Your task to perform on an android device: What's the weather going to be tomorrow? Image 0: 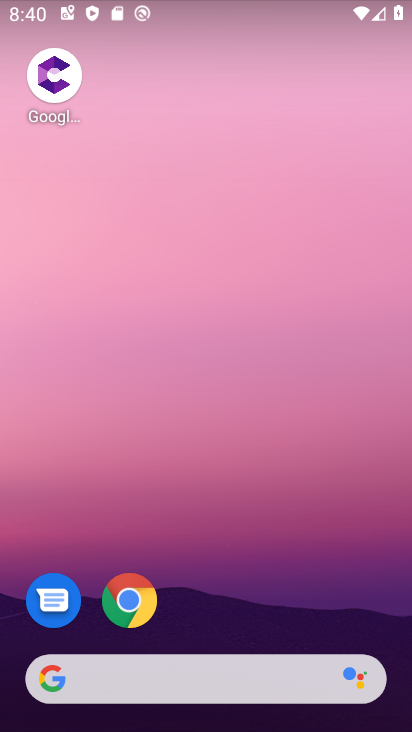
Step 0: click (230, 679)
Your task to perform on an android device: What's the weather going to be tomorrow? Image 1: 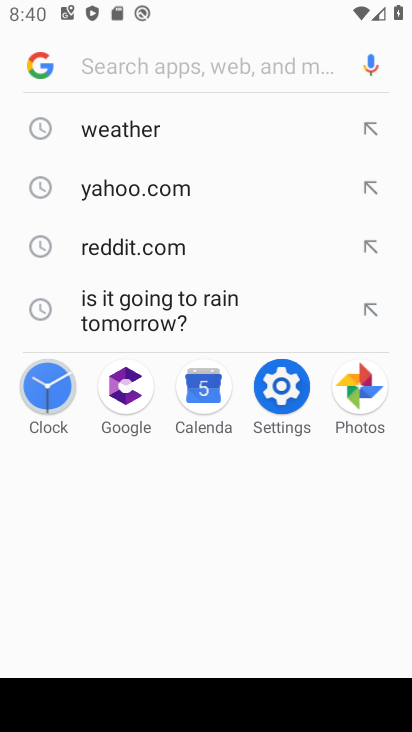
Step 1: click (123, 130)
Your task to perform on an android device: What's the weather going to be tomorrow? Image 2: 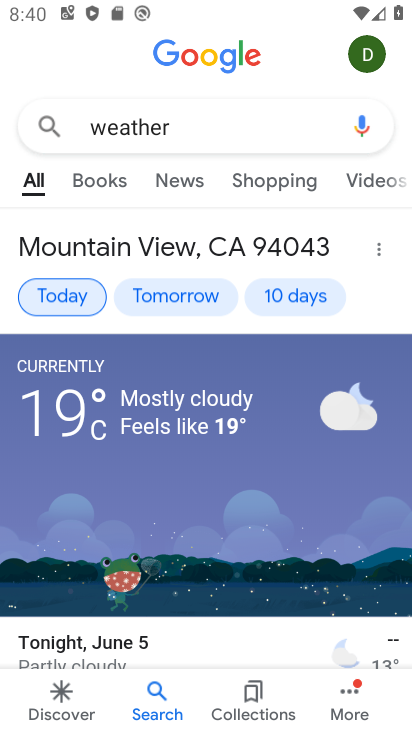
Step 2: click (89, 288)
Your task to perform on an android device: What's the weather going to be tomorrow? Image 3: 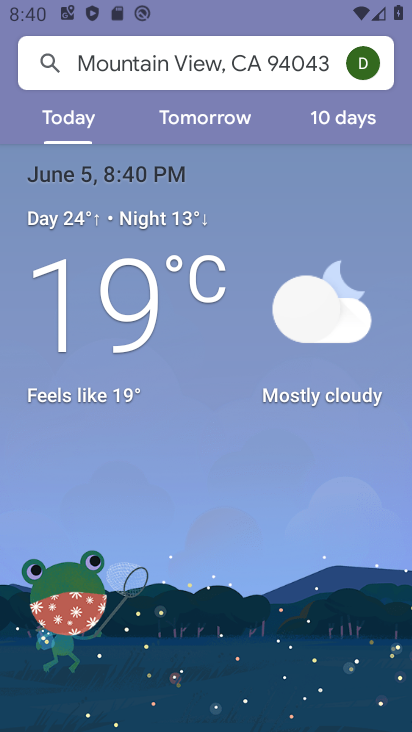
Step 3: click (233, 110)
Your task to perform on an android device: What's the weather going to be tomorrow? Image 4: 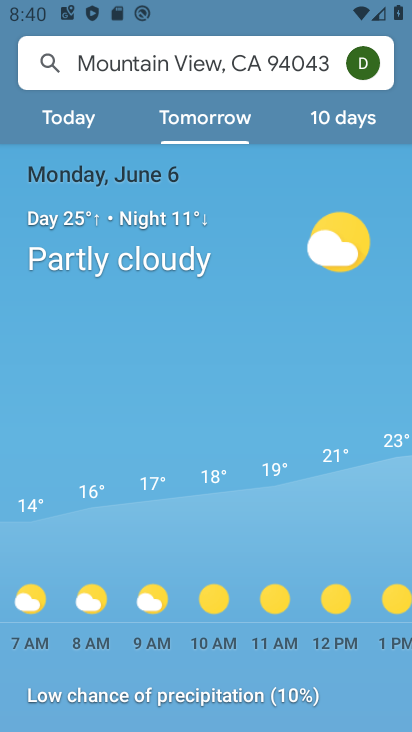
Step 4: task complete